Your task to perform on an android device: change the clock display to show seconds Image 0: 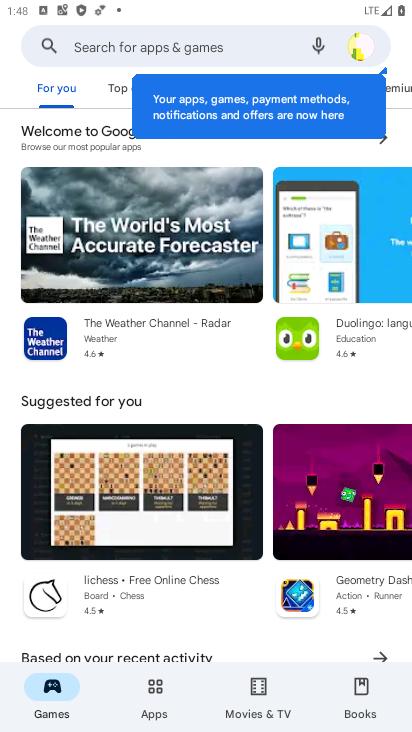
Step 0: press home button
Your task to perform on an android device: change the clock display to show seconds Image 1: 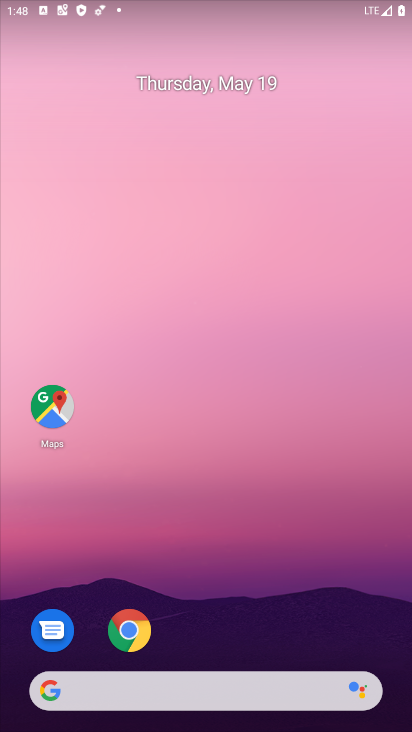
Step 1: drag from (378, 630) to (345, 55)
Your task to perform on an android device: change the clock display to show seconds Image 2: 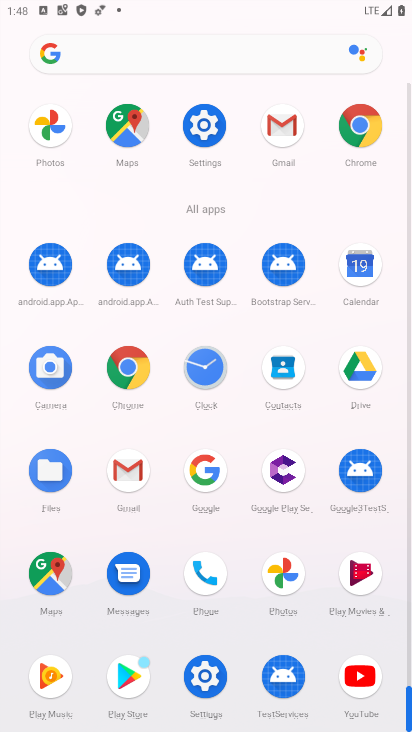
Step 2: click (203, 368)
Your task to perform on an android device: change the clock display to show seconds Image 3: 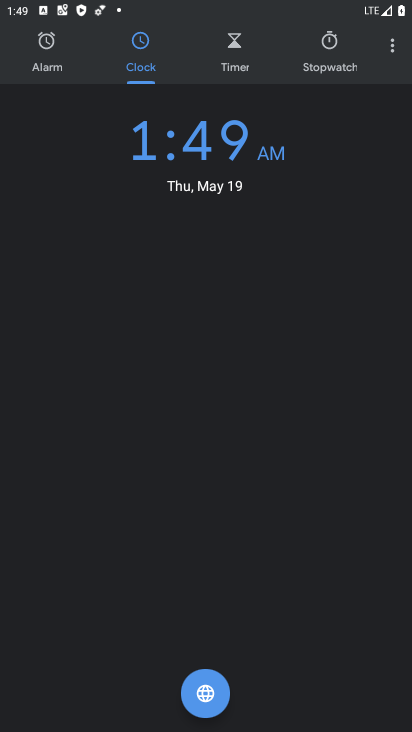
Step 3: click (393, 55)
Your task to perform on an android device: change the clock display to show seconds Image 4: 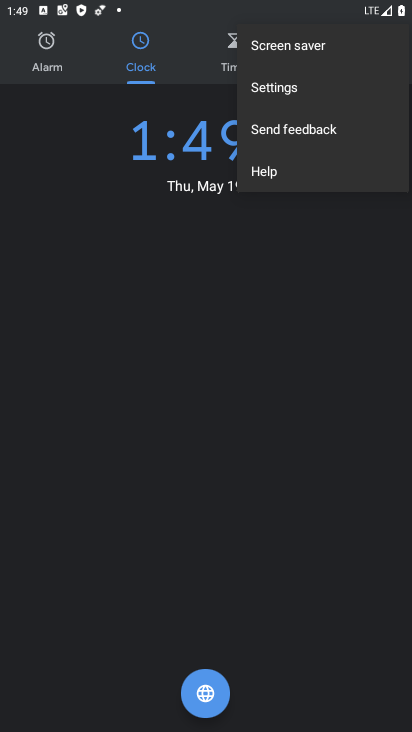
Step 4: click (279, 86)
Your task to perform on an android device: change the clock display to show seconds Image 5: 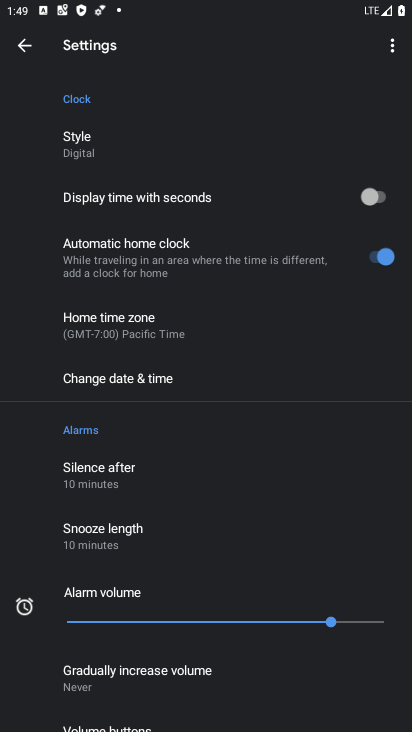
Step 5: click (381, 194)
Your task to perform on an android device: change the clock display to show seconds Image 6: 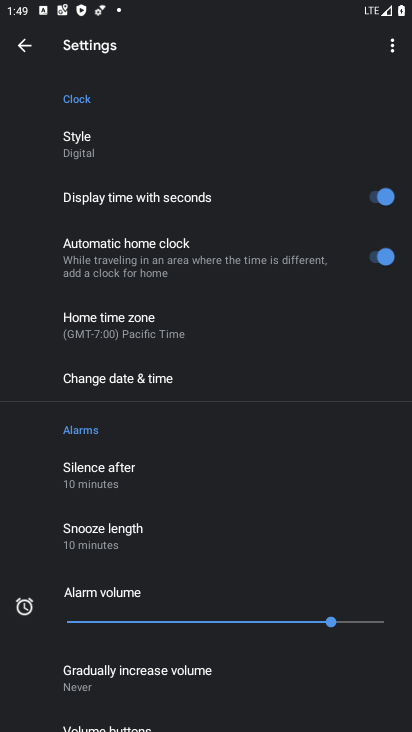
Step 6: task complete